Your task to perform on an android device: toggle javascript in the chrome app Image 0: 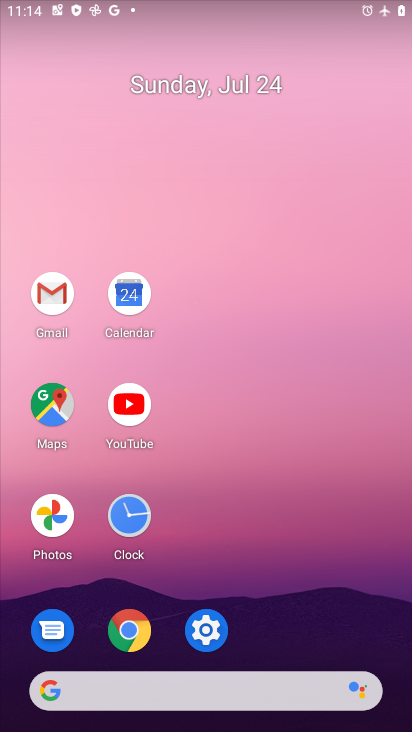
Step 0: click (134, 632)
Your task to perform on an android device: toggle javascript in the chrome app Image 1: 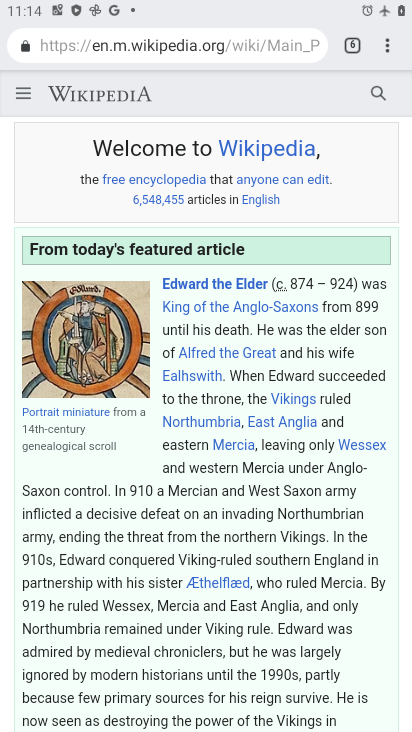
Step 1: click (384, 43)
Your task to perform on an android device: toggle javascript in the chrome app Image 2: 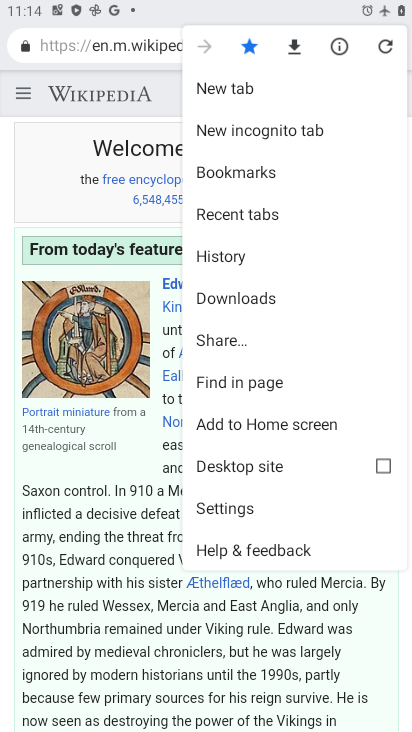
Step 2: click (227, 500)
Your task to perform on an android device: toggle javascript in the chrome app Image 3: 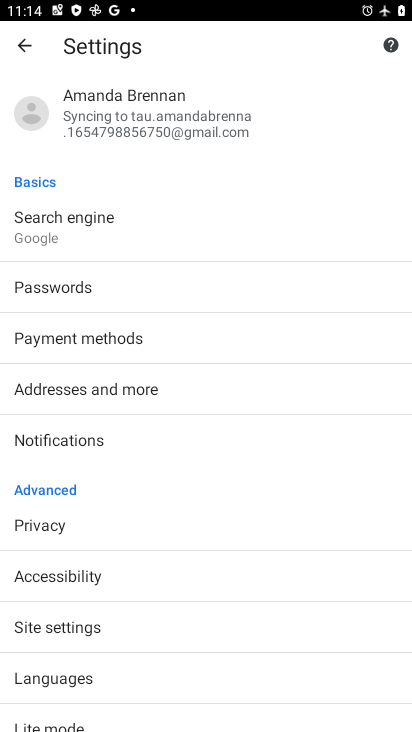
Step 3: click (64, 625)
Your task to perform on an android device: toggle javascript in the chrome app Image 4: 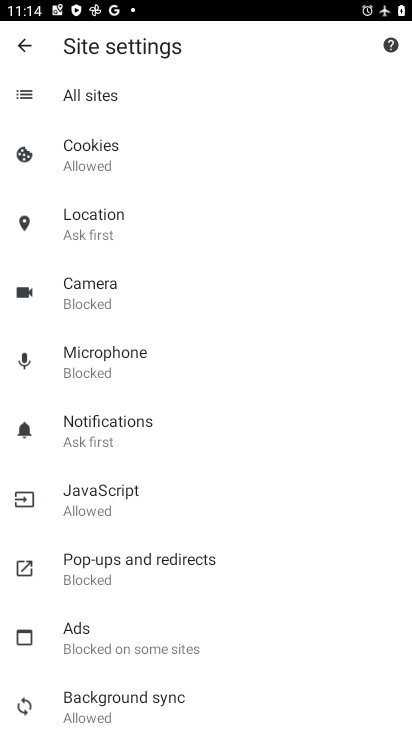
Step 4: click (100, 485)
Your task to perform on an android device: toggle javascript in the chrome app Image 5: 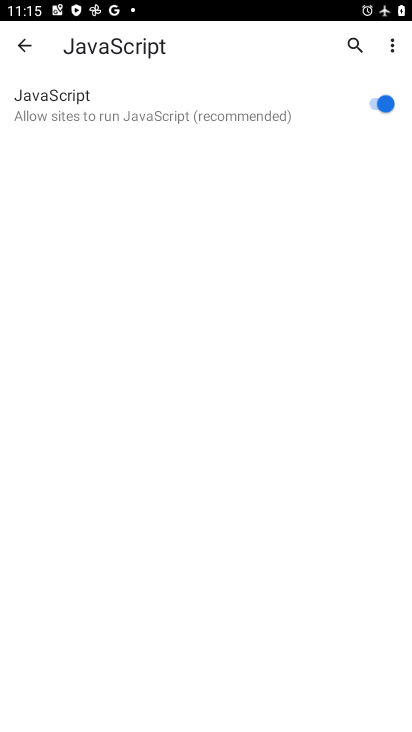
Step 5: click (378, 104)
Your task to perform on an android device: toggle javascript in the chrome app Image 6: 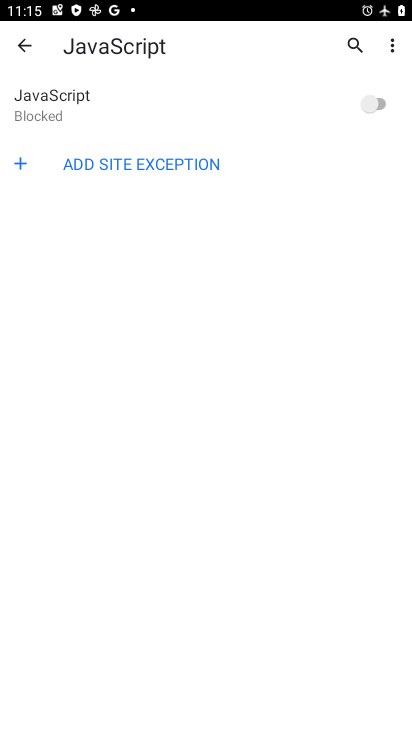
Step 6: task complete